Your task to perform on an android device: delete location history Image 0: 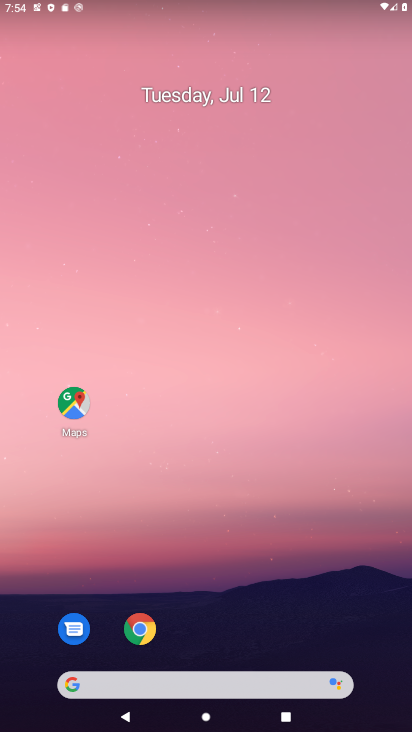
Step 0: click (279, 408)
Your task to perform on an android device: delete location history Image 1: 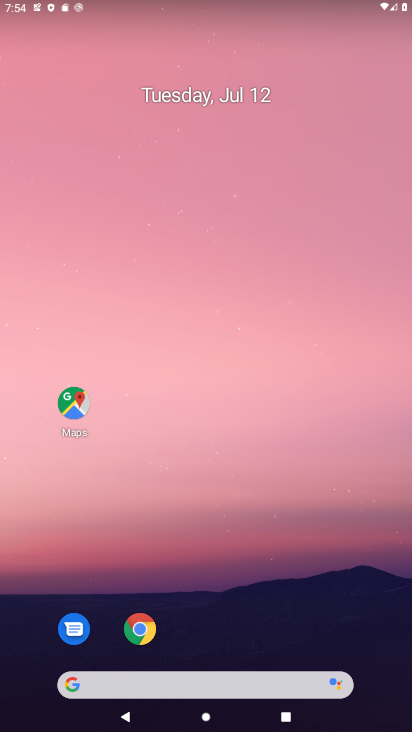
Step 1: drag from (221, 668) to (200, 142)
Your task to perform on an android device: delete location history Image 2: 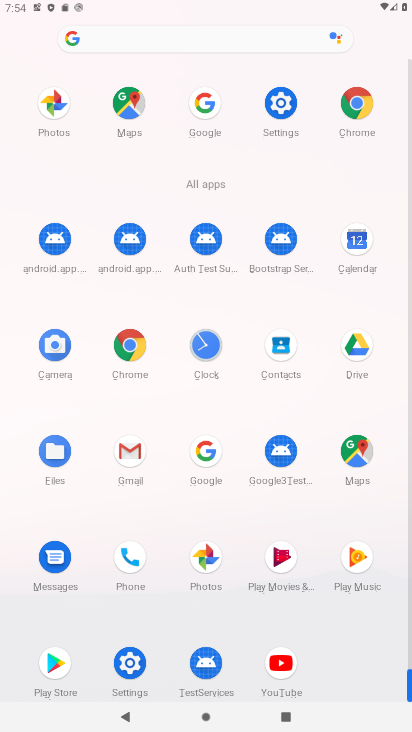
Step 2: click (125, 648)
Your task to perform on an android device: delete location history Image 3: 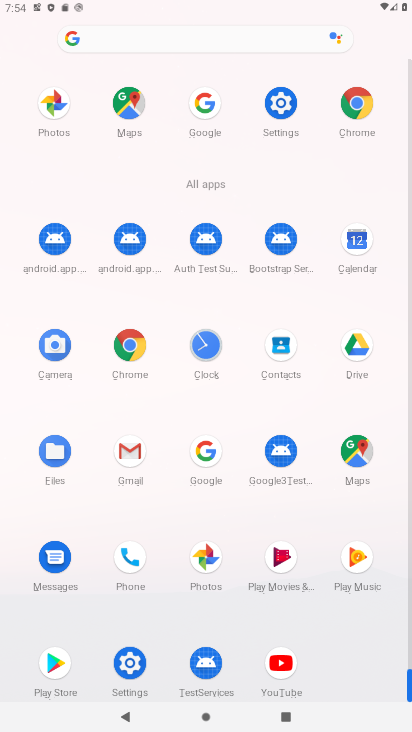
Step 3: click (125, 648)
Your task to perform on an android device: delete location history Image 4: 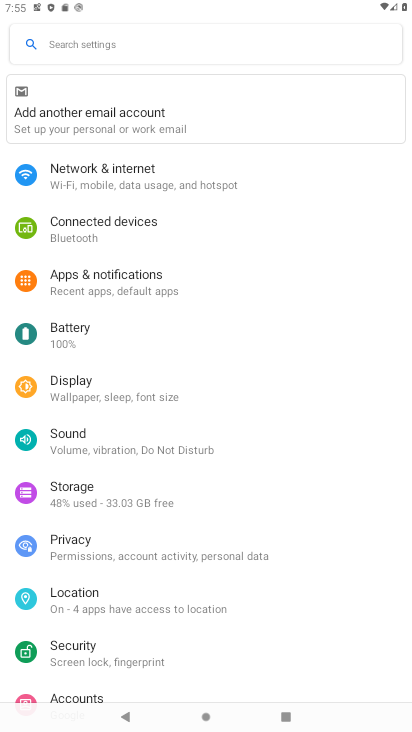
Step 4: click (68, 591)
Your task to perform on an android device: delete location history Image 5: 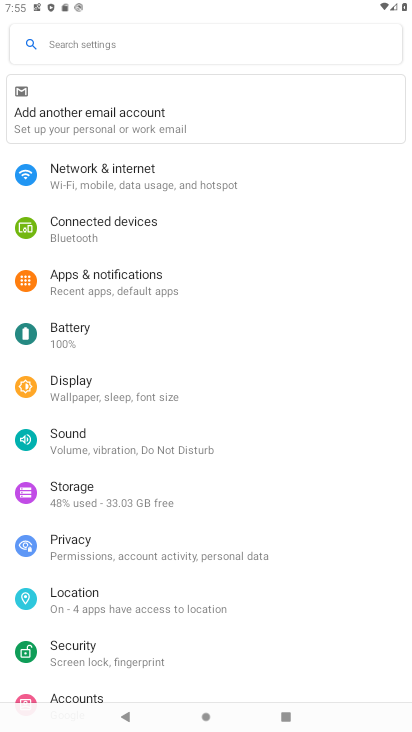
Step 5: click (68, 590)
Your task to perform on an android device: delete location history Image 6: 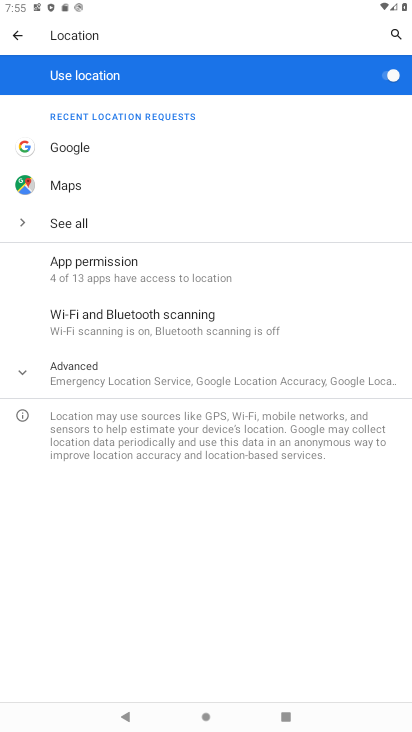
Step 6: click (101, 379)
Your task to perform on an android device: delete location history Image 7: 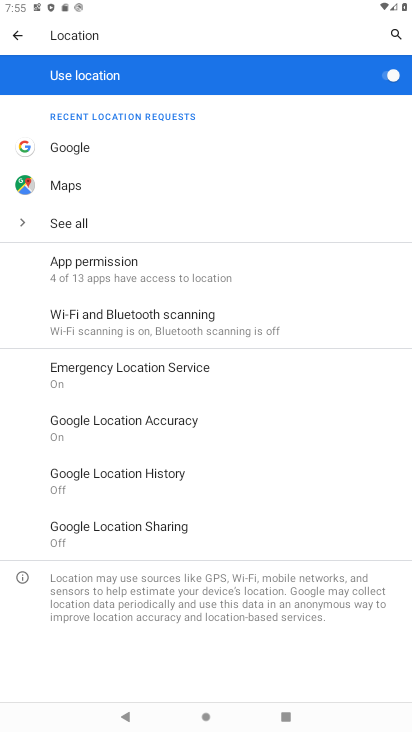
Step 7: click (96, 472)
Your task to perform on an android device: delete location history Image 8: 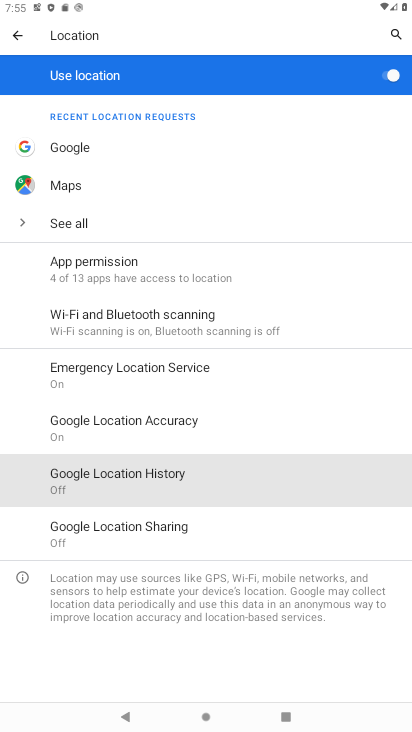
Step 8: click (96, 472)
Your task to perform on an android device: delete location history Image 9: 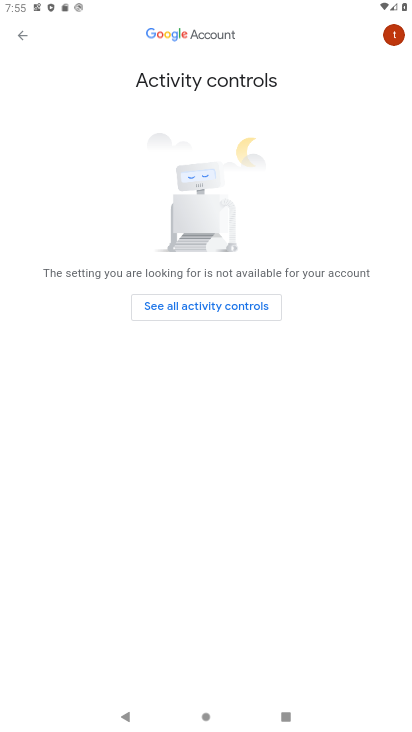
Step 9: click (224, 306)
Your task to perform on an android device: delete location history Image 10: 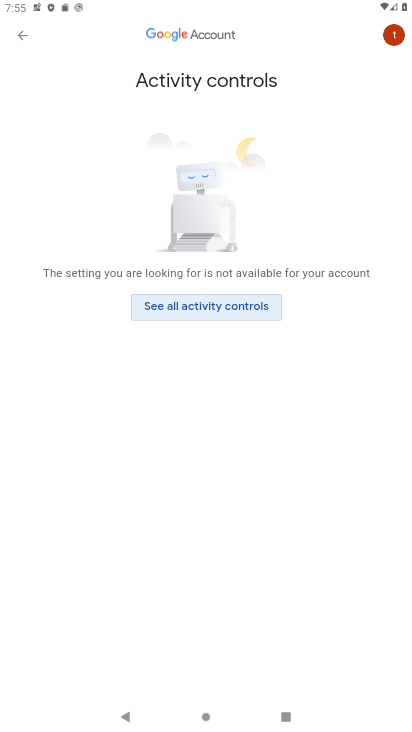
Step 10: click (201, 297)
Your task to perform on an android device: delete location history Image 11: 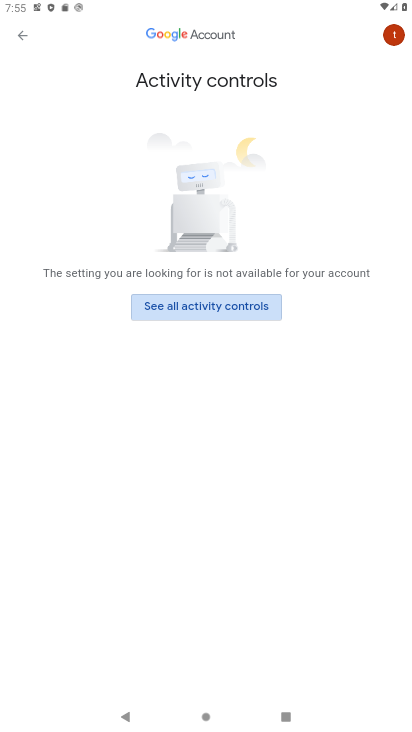
Step 11: click (201, 297)
Your task to perform on an android device: delete location history Image 12: 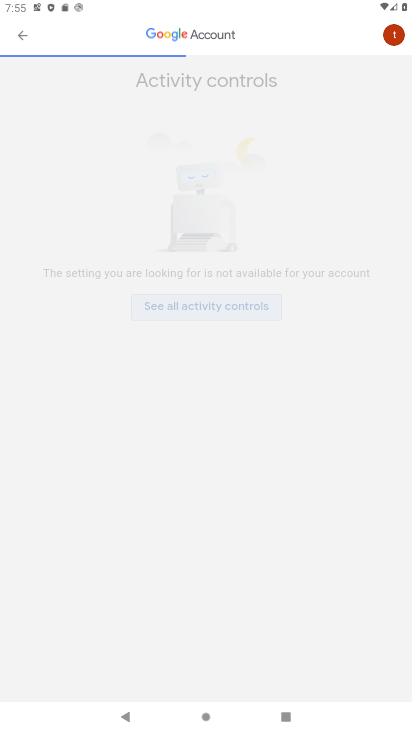
Step 12: click (202, 298)
Your task to perform on an android device: delete location history Image 13: 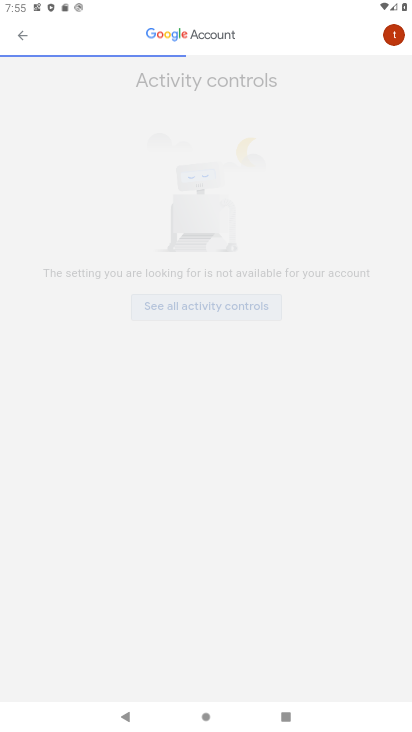
Step 13: click (202, 298)
Your task to perform on an android device: delete location history Image 14: 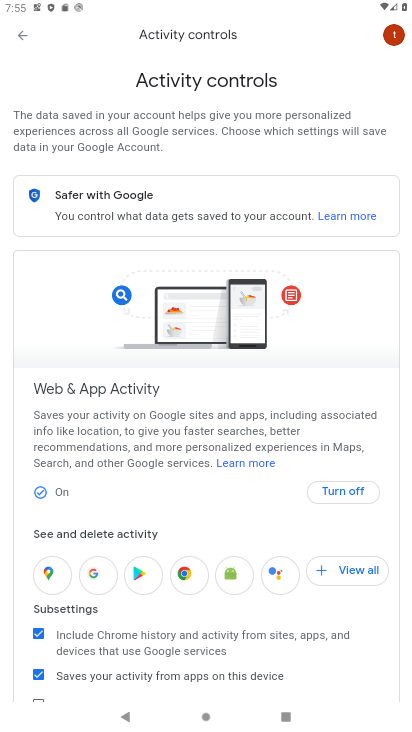
Step 14: task complete